Your task to perform on an android device: Open eBay Image 0: 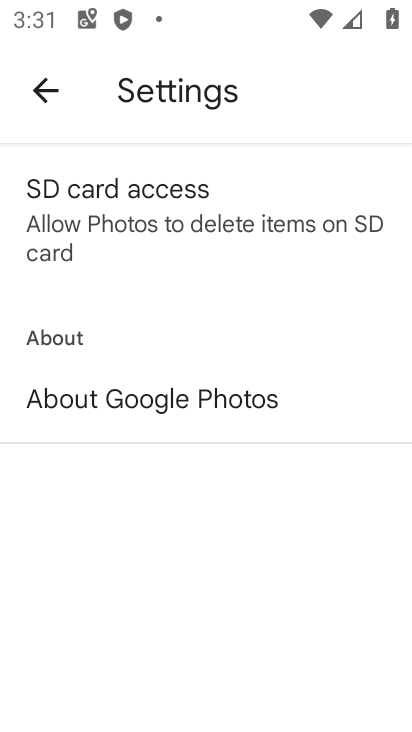
Step 0: press home button
Your task to perform on an android device: Open eBay Image 1: 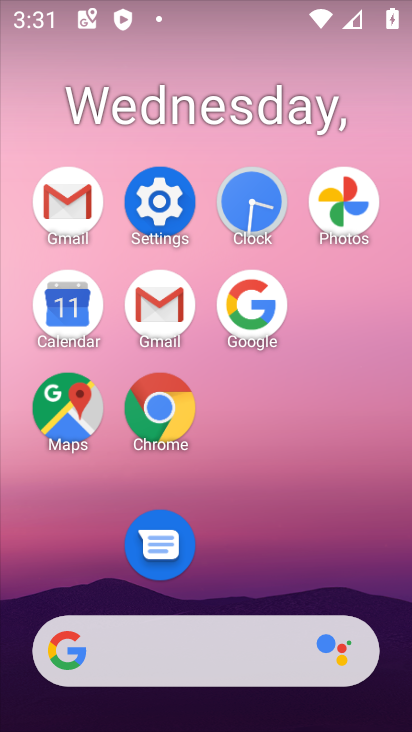
Step 1: click (176, 389)
Your task to perform on an android device: Open eBay Image 2: 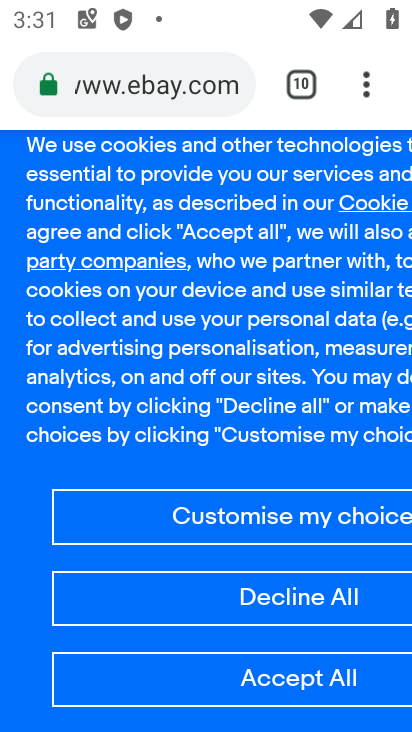
Step 2: task complete